Your task to perform on an android device: turn on airplane mode Image 0: 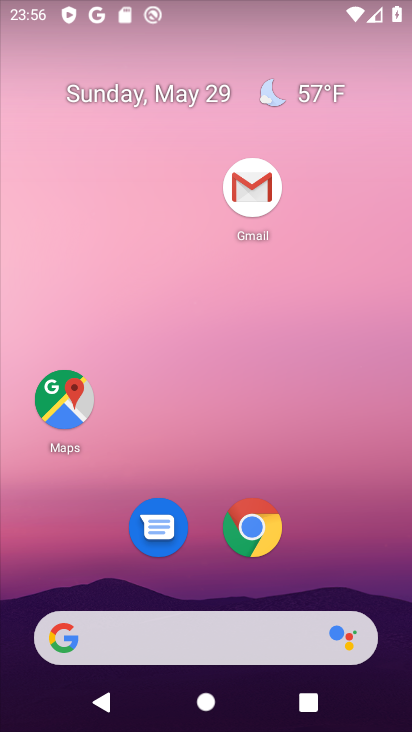
Step 0: drag from (343, 531) to (340, 130)
Your task to perform on an android device: turn on airplane mode Image 1: 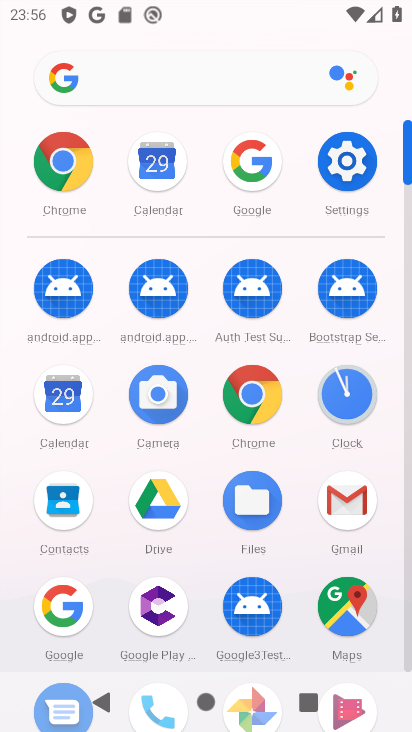
Step 1: click (346, 160)
Your task to perform on an android device: turn on airplane mode Image 2: 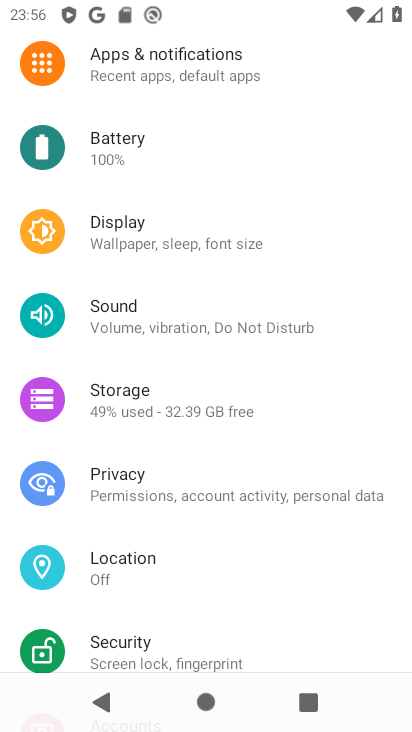
Step 2: drag from (188, 152) to (163, 278)
Your task to perform on an android device: turn on airplane mode Image 3: 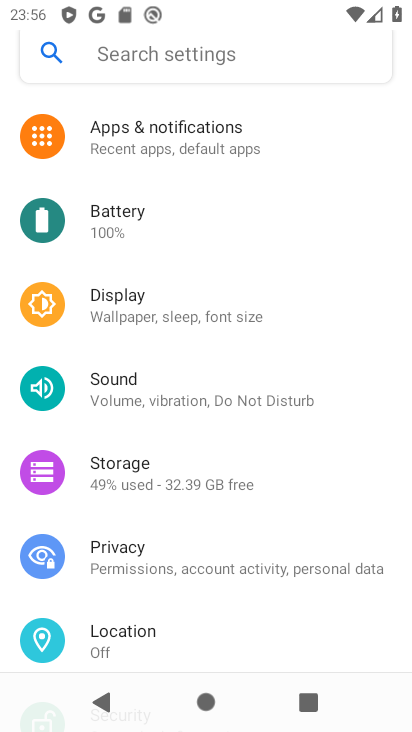
Step 3: drag from (203, 104) to (200, 300)
Your task to perform on an android device: turn on airplane mode Image 4: 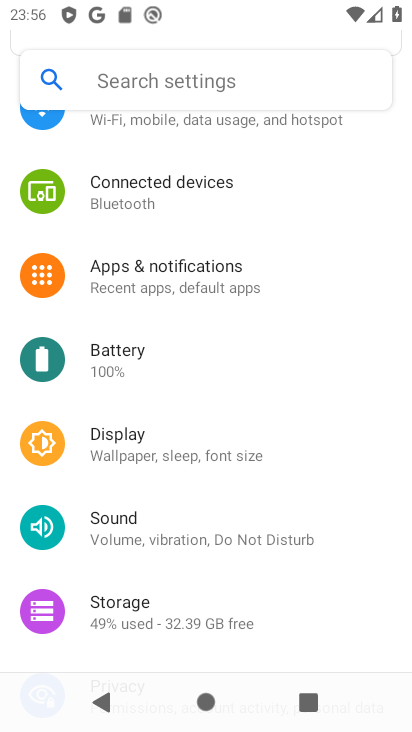
Step 4: drag from (218, 211) to (213, 423)
Your task to perform on an android device: turn on airplane mode Image 5: 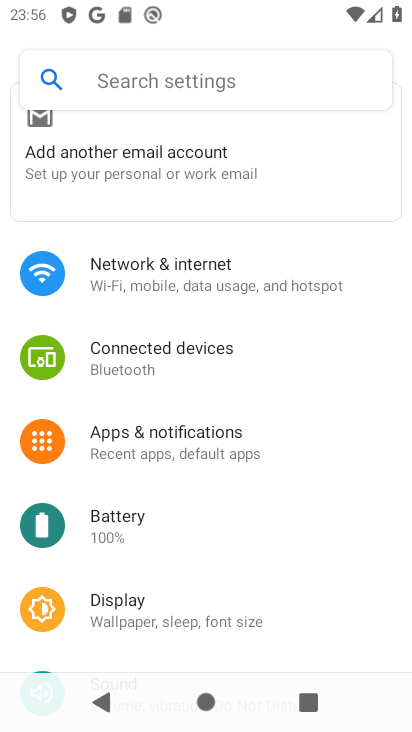
Step 5: click (173, 278)
Your task to perform on an android device: turn on airplane mode Image 6: 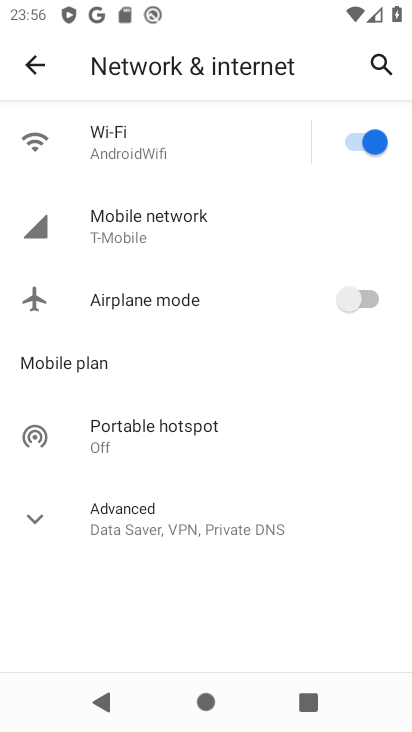
Step 6: click (354, 307)
Your task to perform on an android device: turn on airplane mode Image 7: 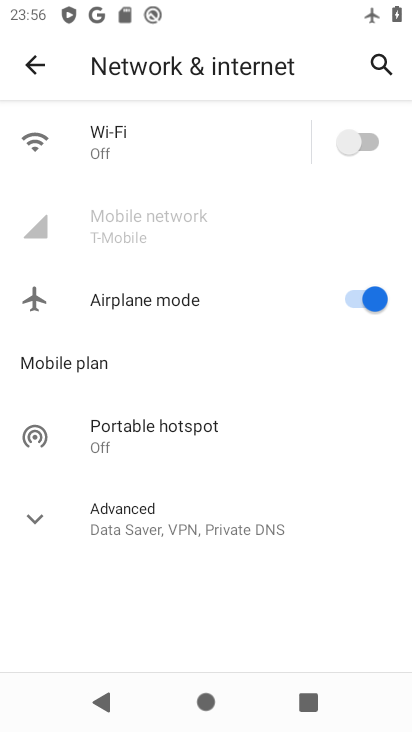
Step 7: task complete